Your task to perform on an android device: set default search engine in the chrome app Image 0: 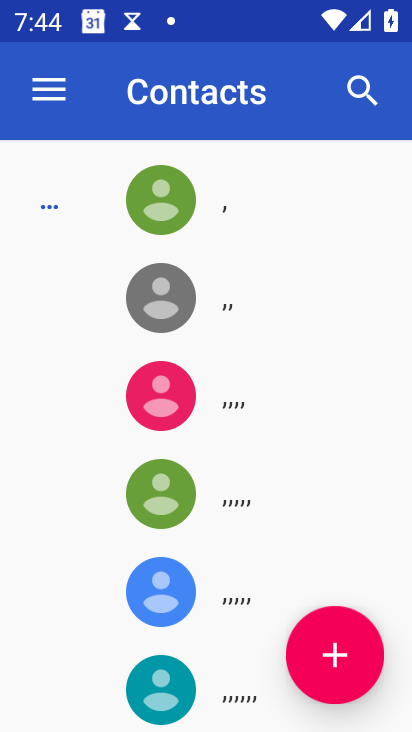
Step 0: press home button
Your task to perform on an android device: set default search engine in the chrome app Image 1: 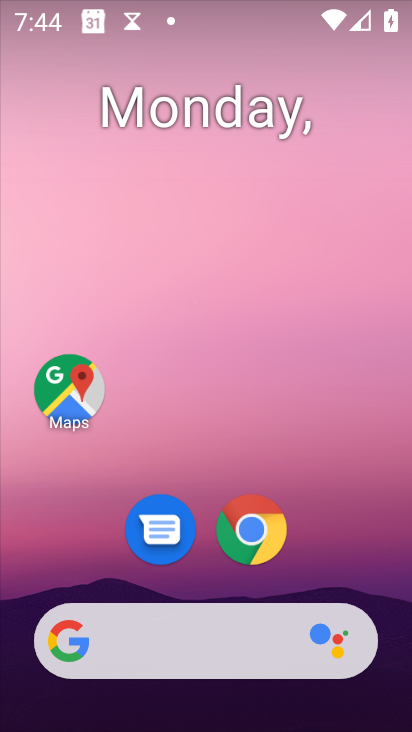
Step 1: click (240, 531)
Your task to perform on an android device: set default search engine in the chrome app Image 2: 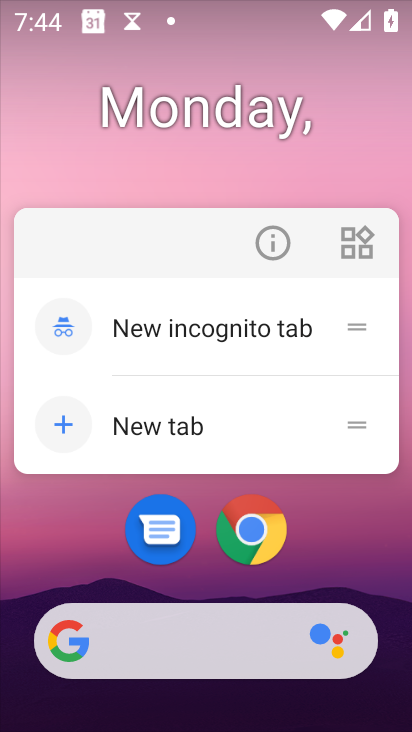
Step 2: click (287, 254)
Your task to perform on an android device: set default search engine in the chrome app Image 3: 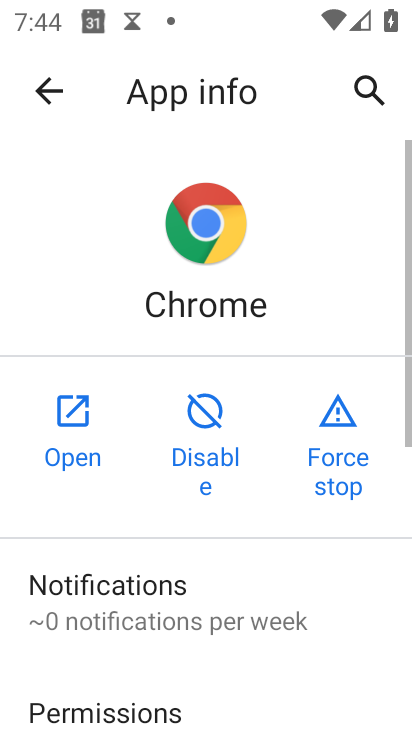
Step 3: click (65, 409)
Your task to perform on an android device: set default search engine in the chrome app Image 4: 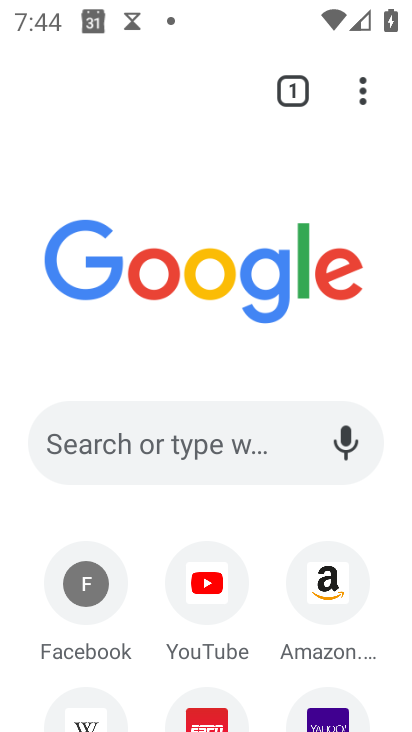
Step 4: click (367, 91)
Your task to perform on an android device: set default search engine in the chrome app Image 5: 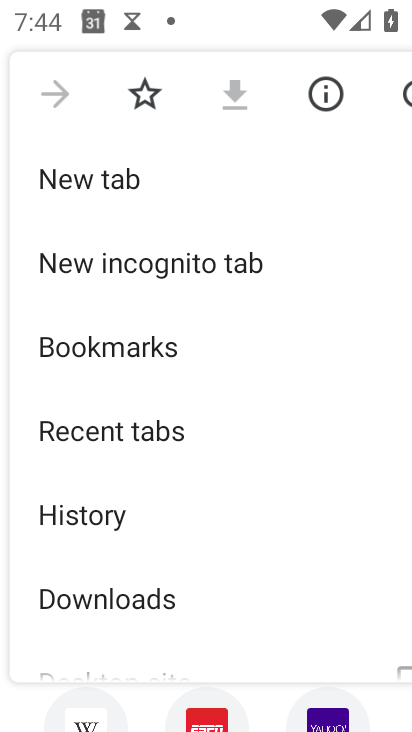
Step 5: drag from (129, 653) to (292, 157)
Your task to perform on an android device: set default search engine in the chrome app Image 6: 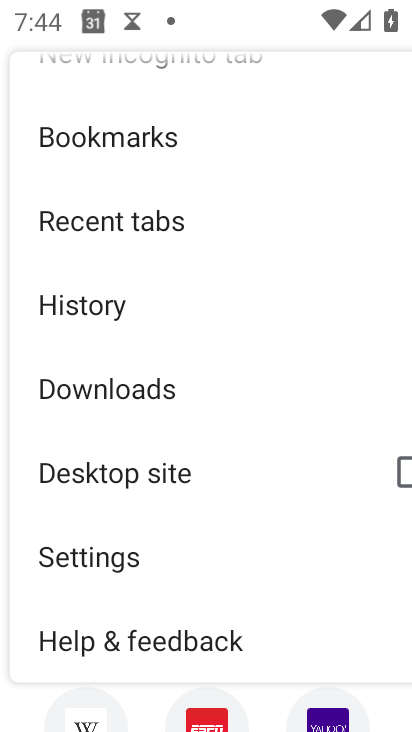
Step 6: click (135, 555)
Your task to perform on an android device: set default search engine in the chrome app Image 7: 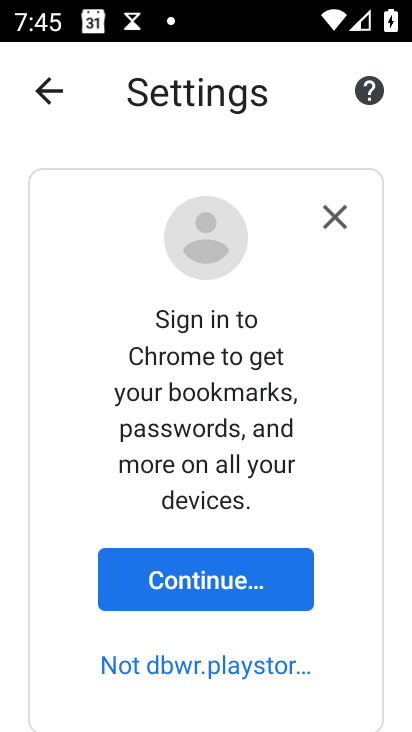
Step 7: click (323, 220)
Your task to perform on an android device: set default search engine in the chrome app Image 8: 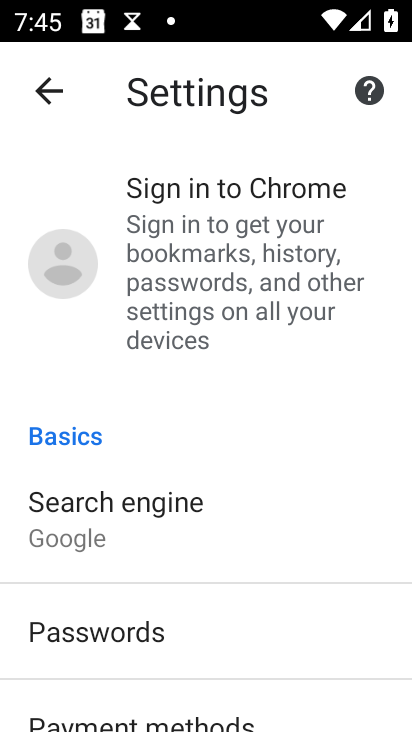
Step 8: click (117, 531)
Your task to perform on an android device: set default search engine in the chrome app Image 9: 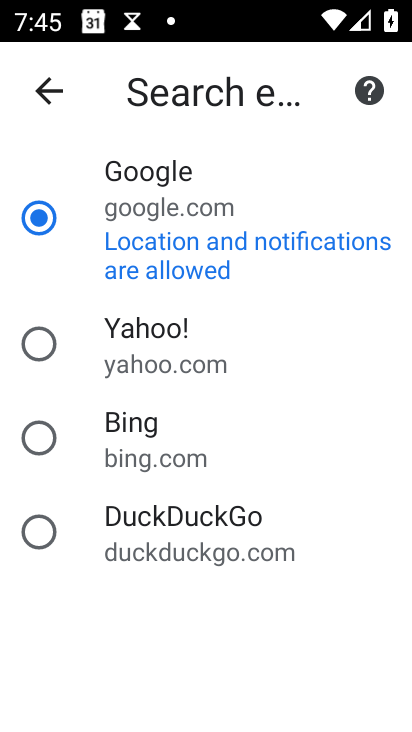
Step 9: click (32, 355)
Your task to perform on an android device: set default search engine in the chrome app Image 10: 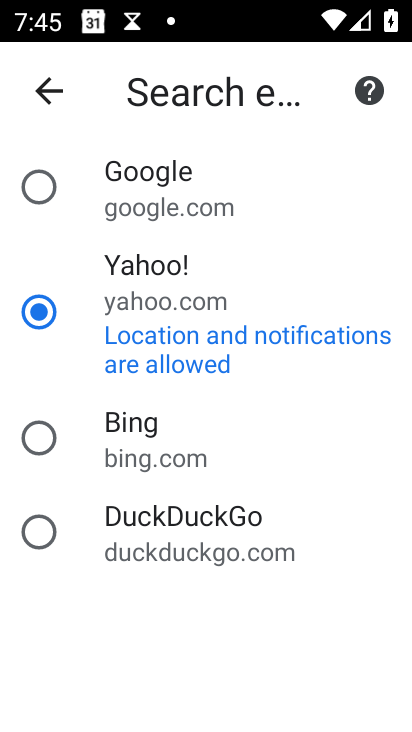
Step 10: task complete